Your task to perform on an android device: find photos in the google photos app Image 0: 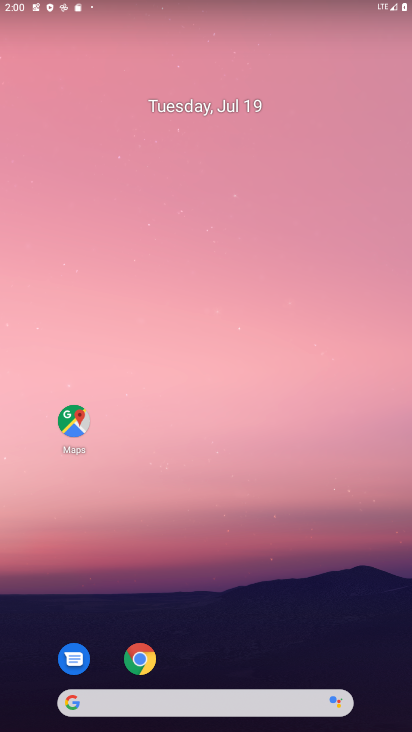
Step 0: press home button
Your task to perform on an android device: find photos in the google photos app Image 1: 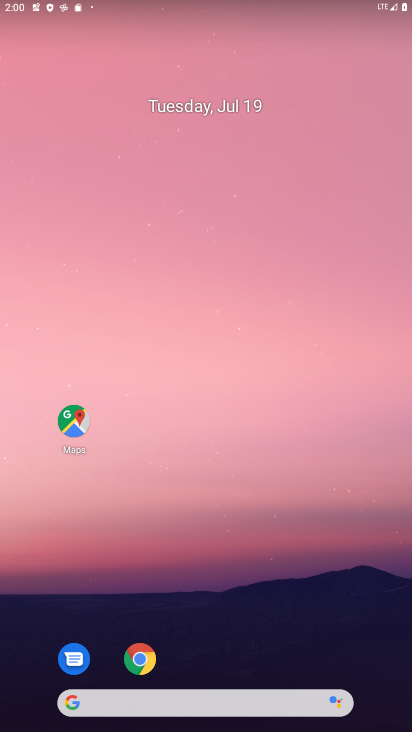
Step 1: drag from (351, 628) to (302, 120)
Your task to perform on an android device: find photos in the google photos app Image 2: 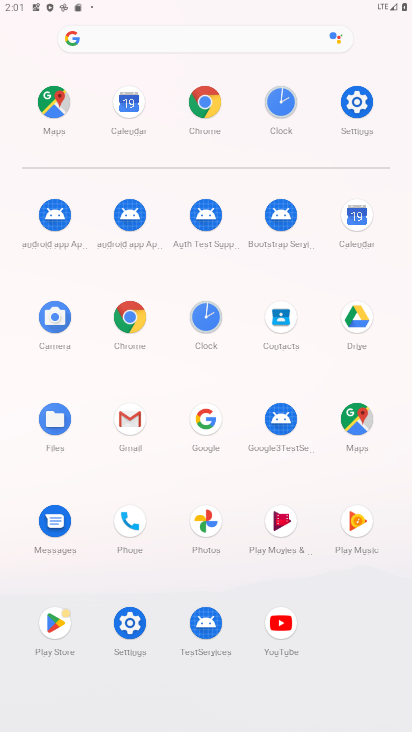
Step 2: click (230, 538)
Your task to perform on an android device: find photos in the google photos app Image 3: 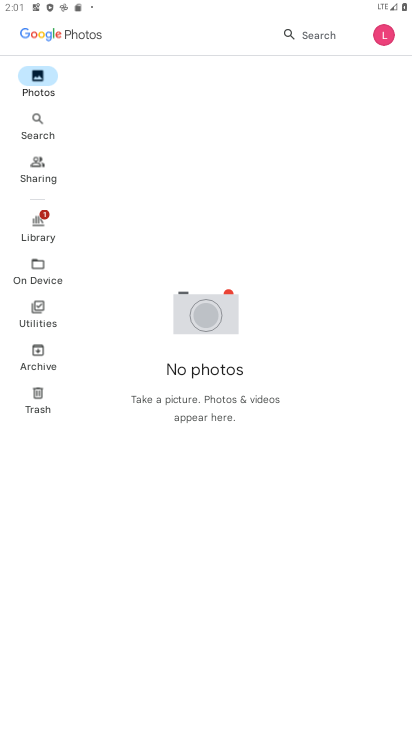
Step 3: task complete